Your task to perform on an android device: Open the calendar app, open the side menu, and click the "Day" option Image 0: 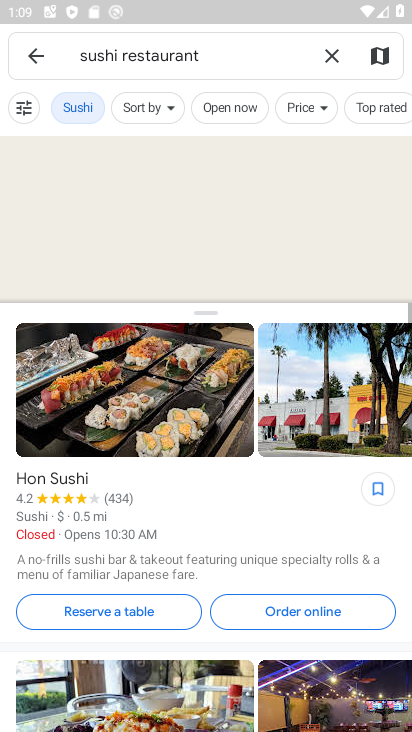
Step 0: press back button
Your task to perform on an android device: Open the calendar app, open the side menu, and click the "Day" option Image 1: 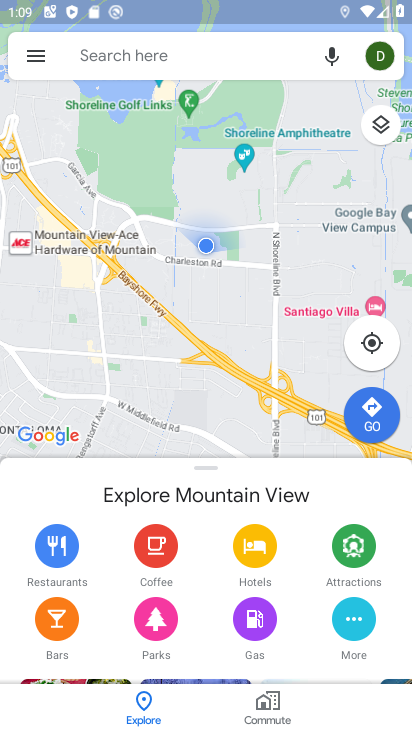
Step 1: press home button
Your task to perform on an android device: Open the calendar app, open the side menu, and click the "Day" option Image 2: 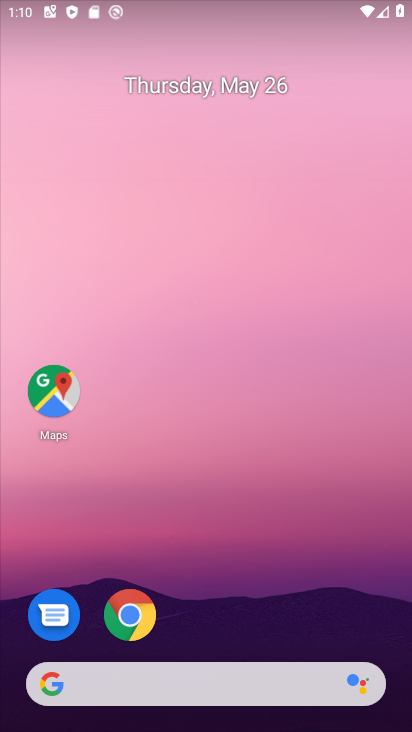
Step 2: drag from (191, 647) to (235, 91)
Your task to perform on an android device: Open the calendar app, open the side menu, and click the "Day" option Image 3: 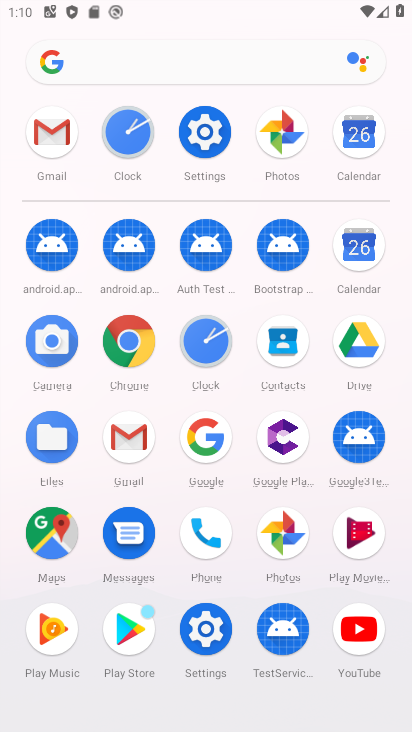
Step 3: click (351, 255)
Your task to perform on an android device: Open the calendar app, open the side menu, and click the "Day" option Image 4: 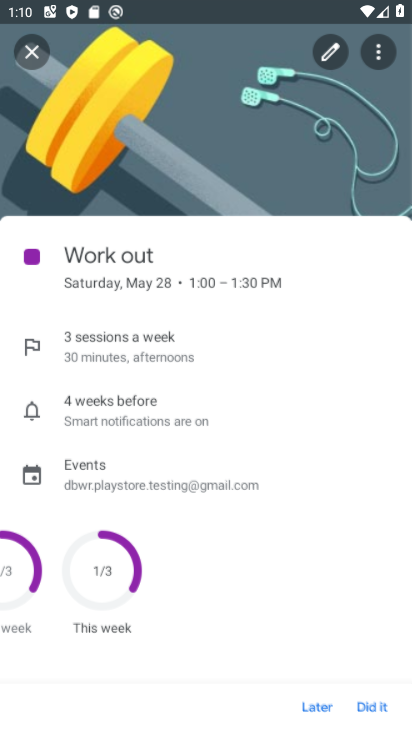
Step 4: click (34, 41)
Your task to perform on an android device: Open the calendar app, open the side menu, and click the "Day" option Image 5: 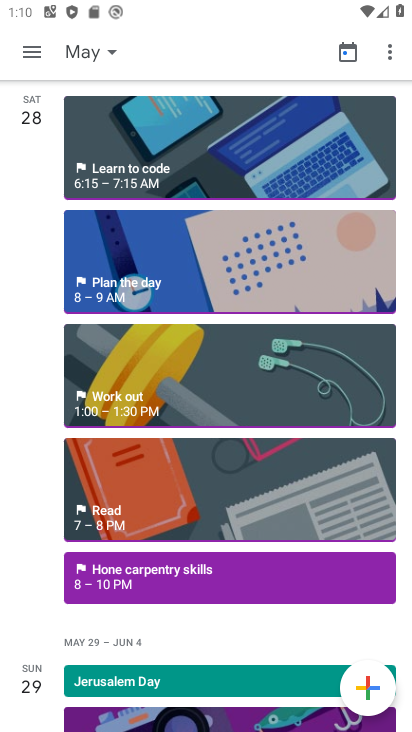
Step 5: click (21, 62)
Your task to perform on an android device: Open the calendar app, open the side menu, and click the "Day" option Image 6: 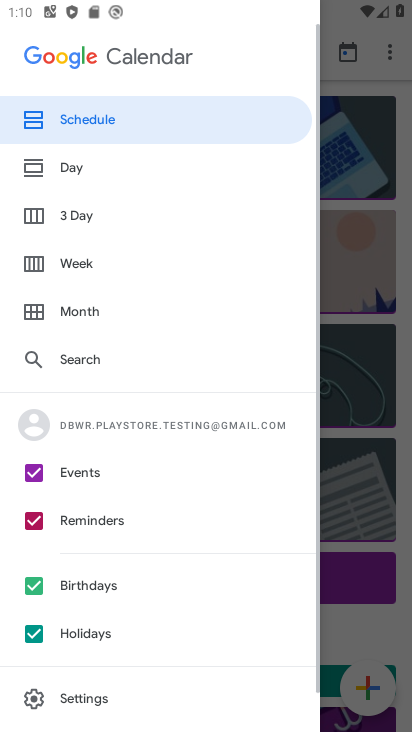
Step 6: click (67, 162)
Your task to perform on an android device: Open the calendar app, open the side menu, and click the "Day" option Image 7: 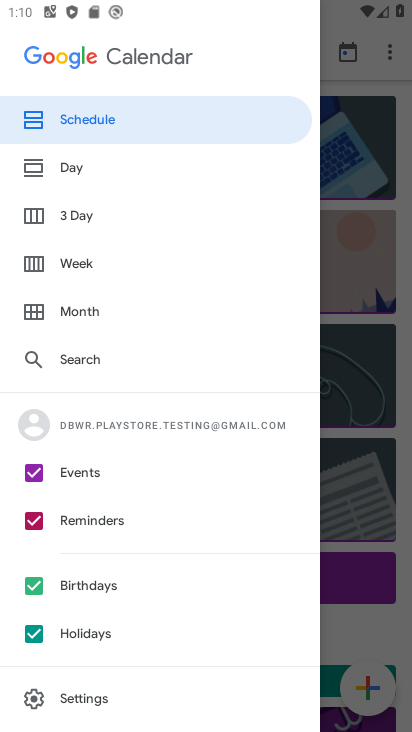
Step 7: click (72, 166)
Your task to perform on an android device: Open the calendar app, open the side menu, and click the "Day" option Image 8: 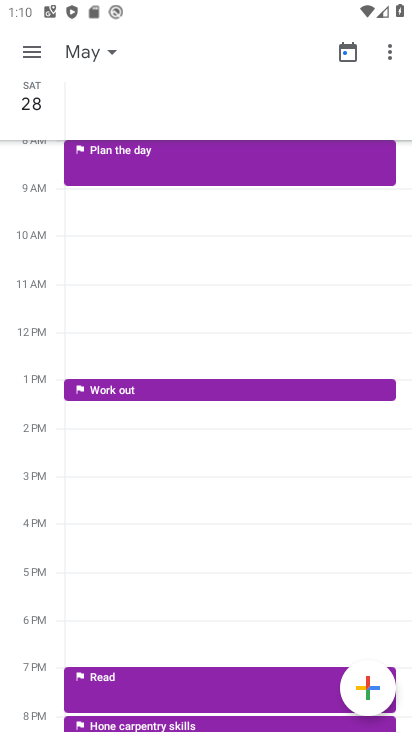
Step 8: task complete